Your task to perform on an android device: Go to internet settings Image 0: 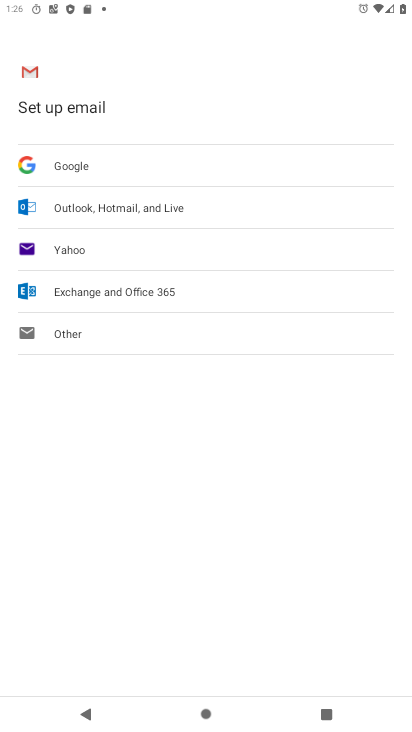
Step 0: task impossible